Your task to perform on an android device: Turn off the flashlight Image 0: 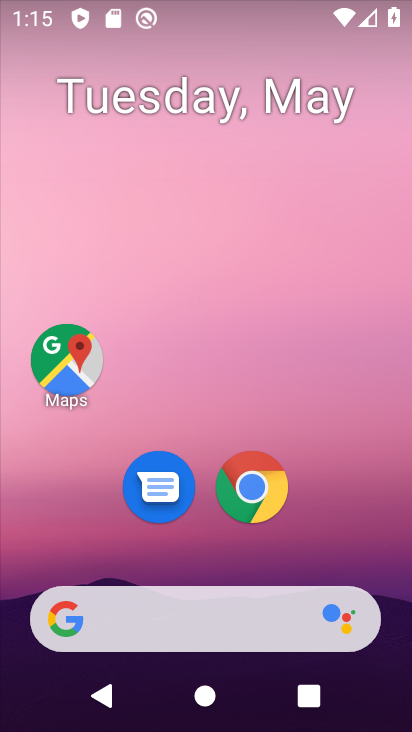
Step 0: drag from (193, 526) to (200, 126)
Your task to perform on an android device: Turn off the flashlight Image 1: 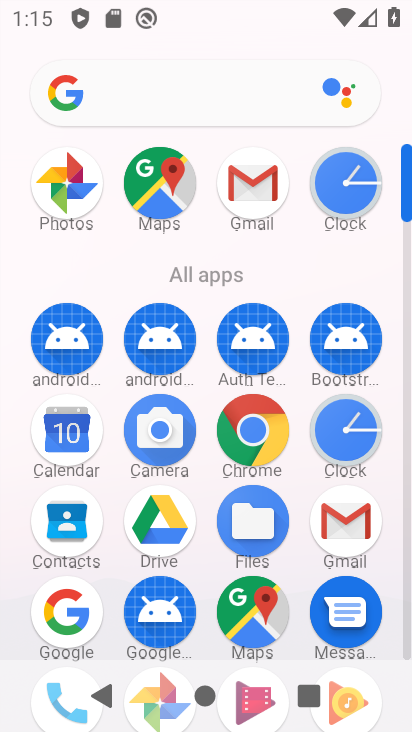
Step 1: task complete